Your task to perform on an android device: delete browsing data in the chrome app Image 0: 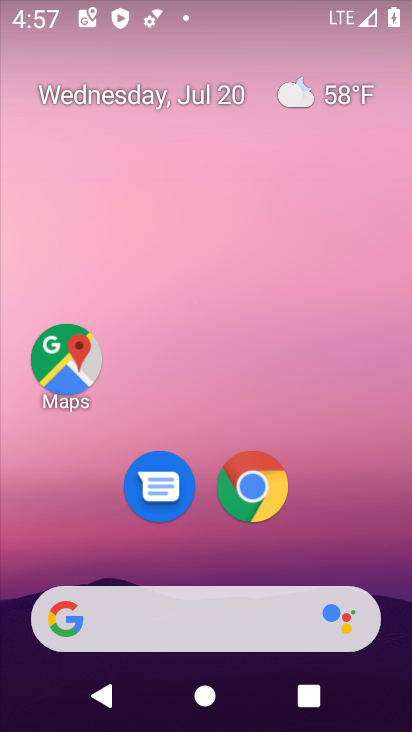
Step 0: click (247, 487)
Your task to perform on an android device: delete browsing data in the chrome app Image 1: 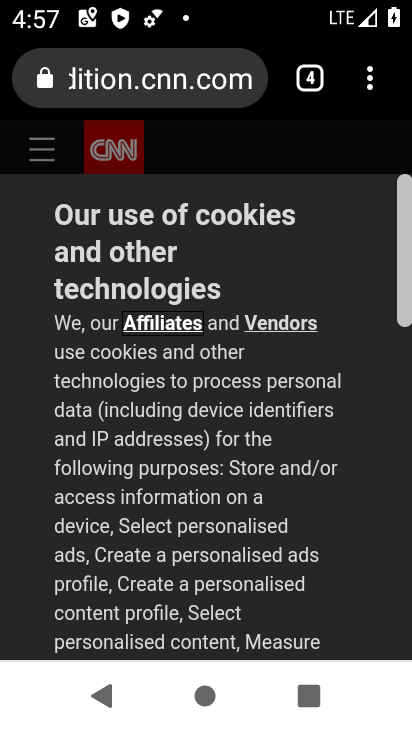
Step 1: drag from (371, 79) to (97, 442)
Your task to perform on an android device: delete browsing data in the chrome app Image 2: 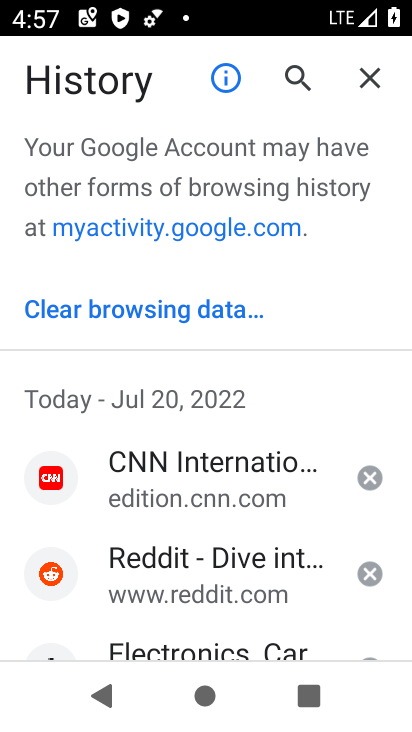
Step 2: click (115, 308)
Your task to perform on an android device: delete browsing data in the chrome app Image 3: 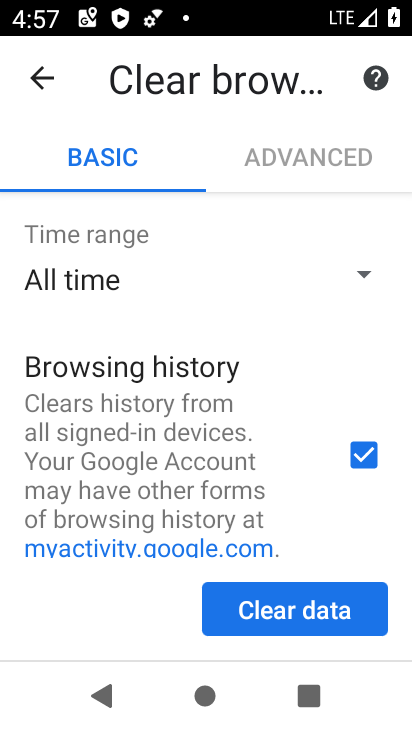
Step 3: drag from (121, 503) to (182, 87)
Your task to perform on an android device: delete browsing data in the chrome app Image 4: 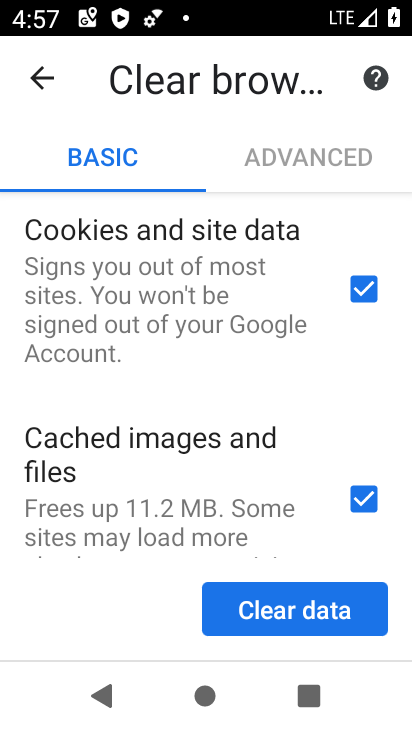
Step 4: drag from (190, 273) to (254, 238)
Your task to perform on an android device: delete browsing data in the chrome app Image 5: 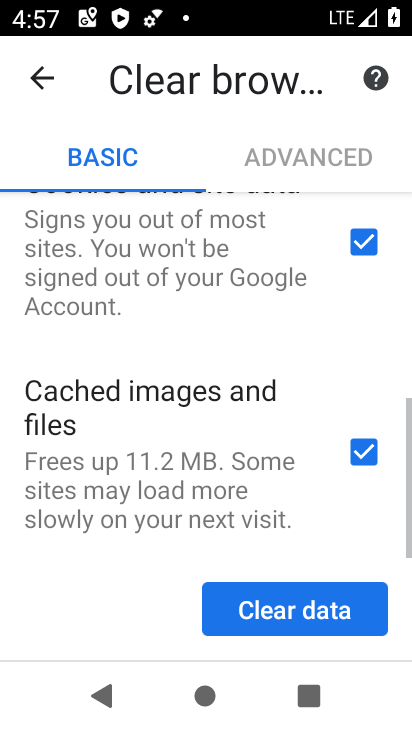
Step 5: click (289, 619)
Your task to perform on an android device: delete browsing data in the chrome app Image 6: 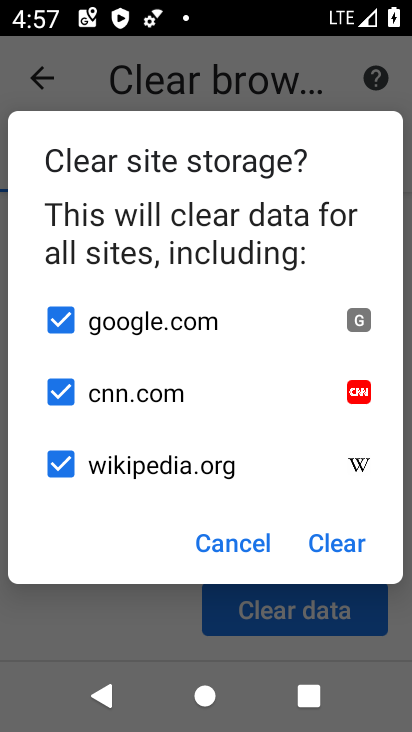
Step 6: click (329, 534)
Your task to perform on an android device: delete browsing data in the chrome app Image 7: 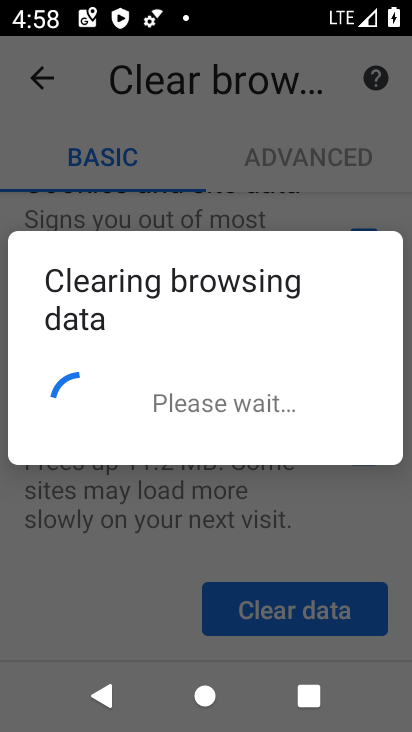
Step 7: task complete